Your task to perform on an android device: Show me popular games on the Play Store Image 0: 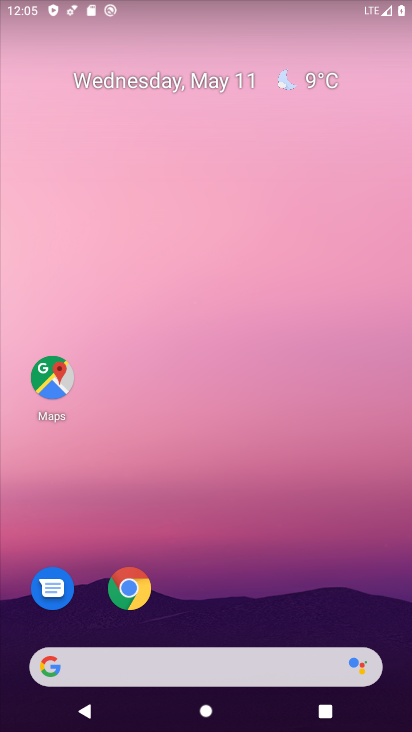
Step 0: drag from (347, 617) to (295, 726)
Your task to perform on an android device: Show me popular games on the Play Store Image 1: 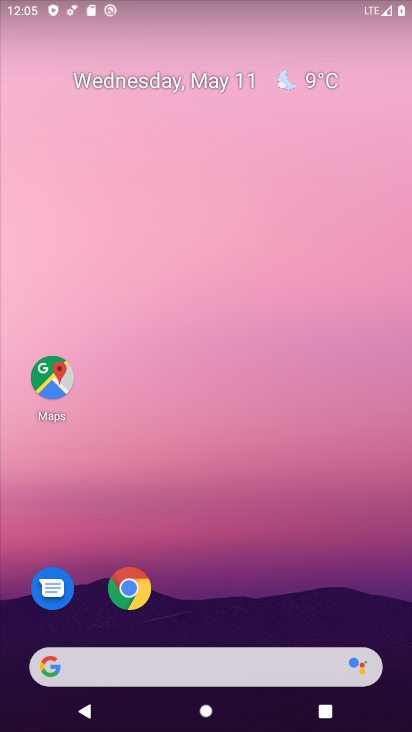
Step 1: drag from (394, 608) to (187, 731)
Your task to perform on an android device: Show me popular games on the Play Store Image 2: 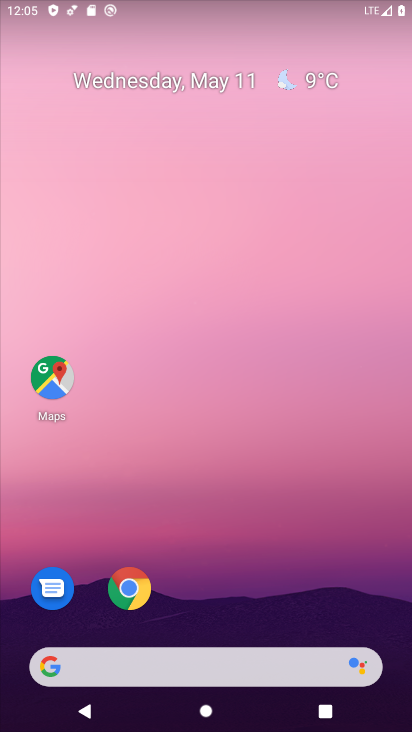
Step 2: drag from (306, 614) to (326, 13)
Your task to perform on an android device: Show me popular games on the Play Store Image 3: 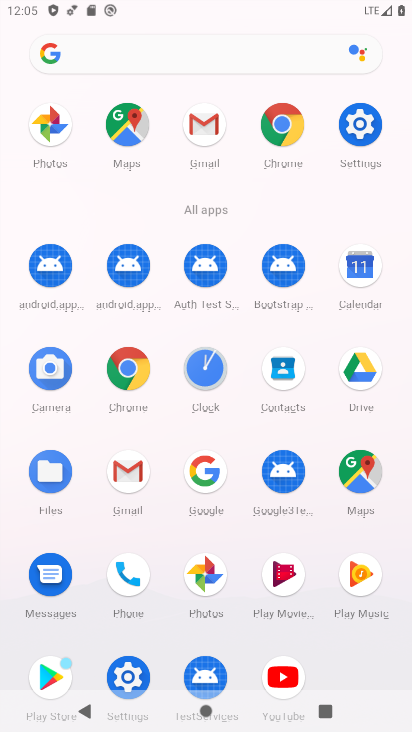
Step 3: click (57, 675)
Your task to perform on an android device: Show me popular games on the Play Store Image 4: 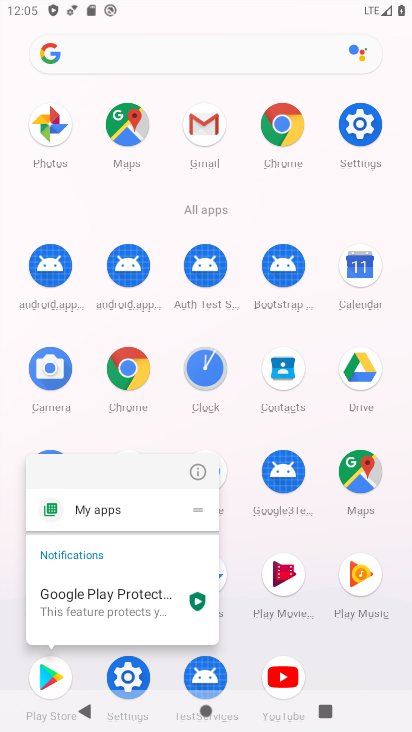
Step 4: click (57, 675)
Your task to perform on an android device: Show me popular games on the Play Store Image 5: 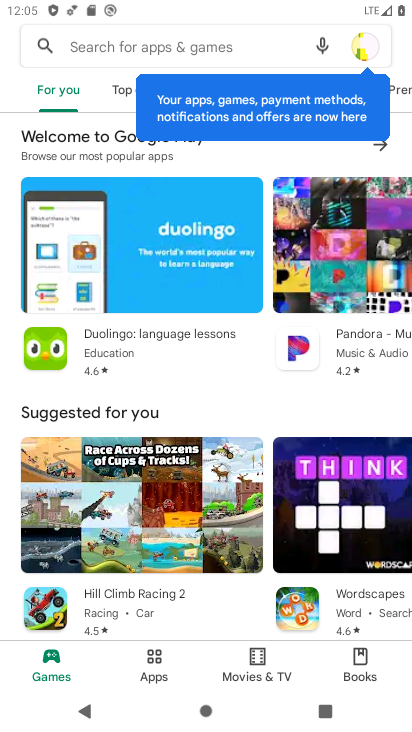
Step 5: click (62, 675)
Your task to perform on an android device: Show me popular games on the Play Store Image 6: 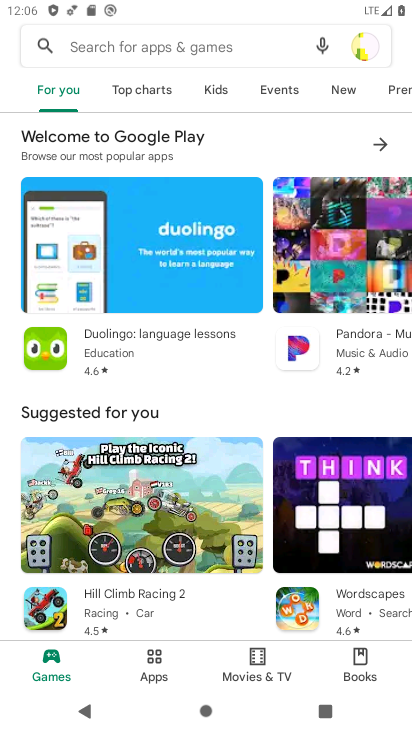
Step 6: task complete